Your task to perform on an android device: turn smart compose on in the gmail app Image 0: 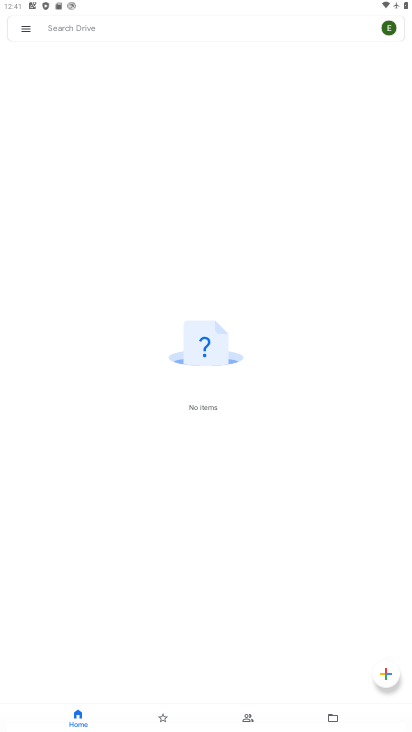
Step 0: press home button
Your task to perform on an android device: turn smart compose on in the gmail app Image 1: 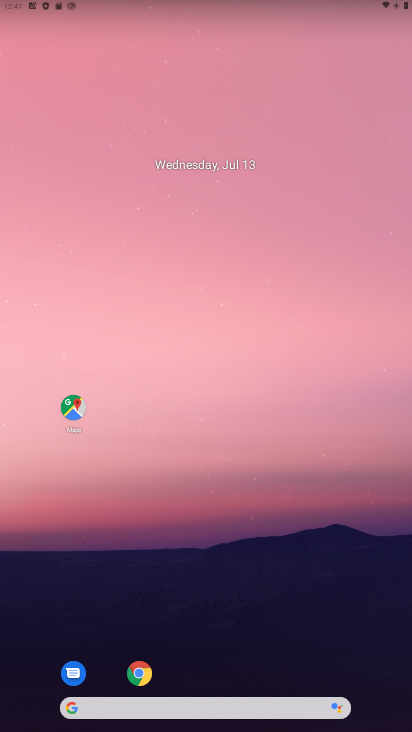
Step 1: drag from (253, 666) to (251, 132)
Your task to perform on an android device: turn smart compose on in the gmail app Image 2: 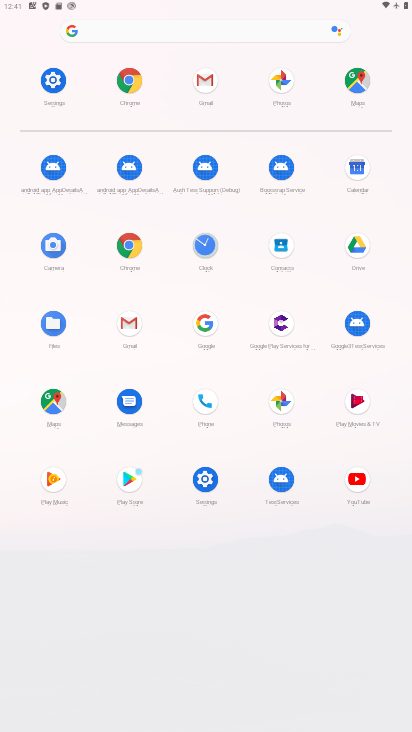
Step 2: click (209, 85)
Your task to perform on an android device: turn smart compose on in the gmail app Image 3: 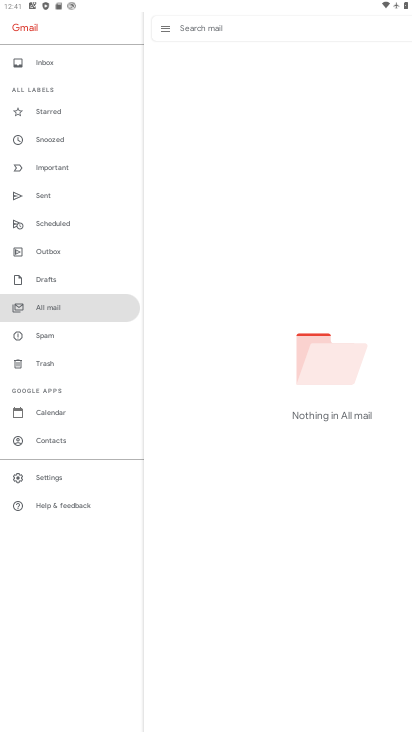
Step 3: click (71, 483)
Your task to perform on an android device: turn smart compose on in the gmail app Image 4: 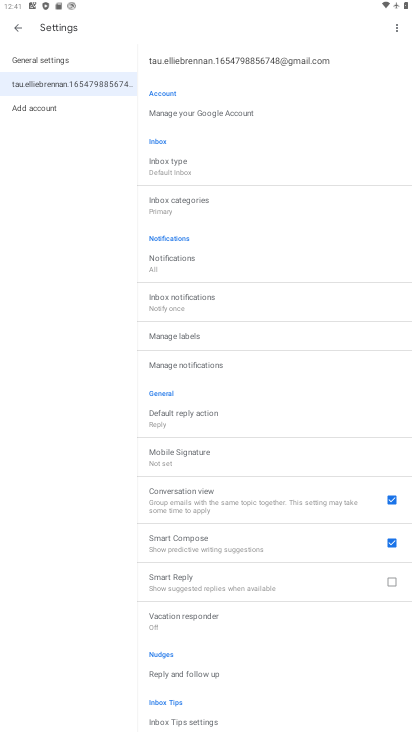
Step 4: task complete